Your task to perform on an android device: Open maps Image 0: 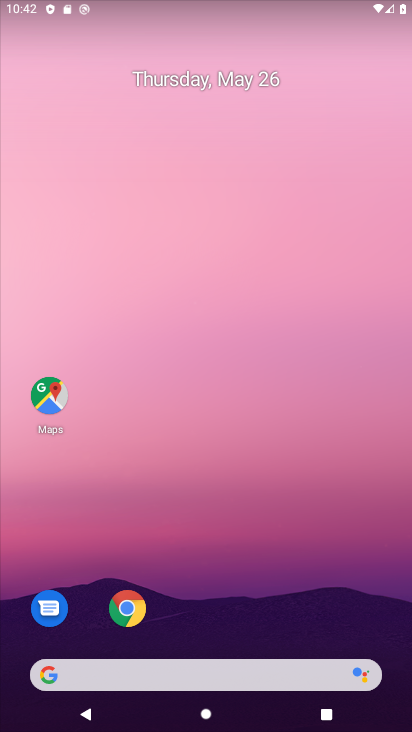
Step 0: drag from (211, 546) to (291, 69)
Your task to perform on an android device: Open maps Image 1: 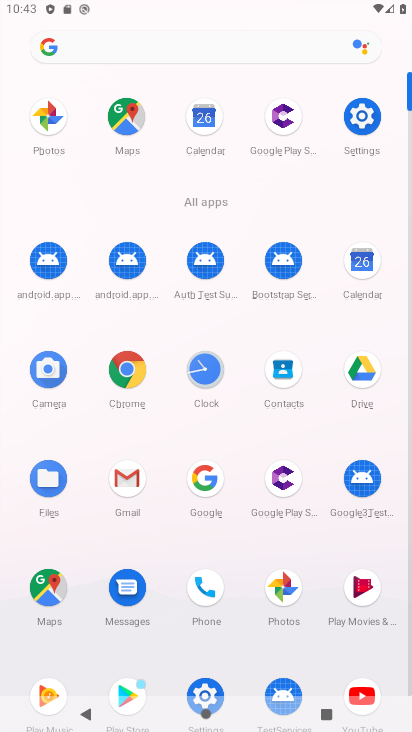
Step 1: click (124, 108)
Your task to perform on an android device: Open maps Image 2: 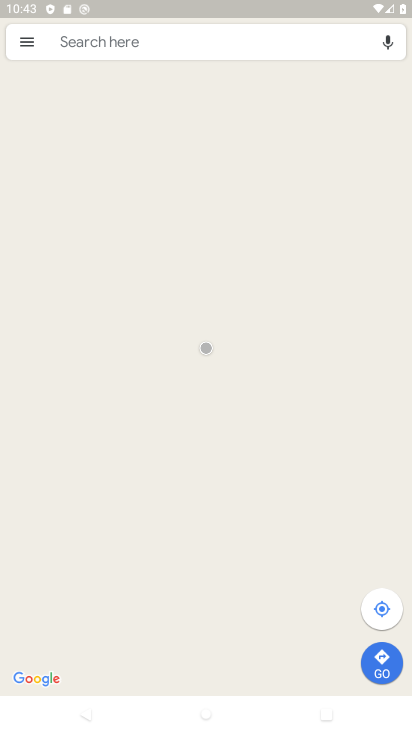
Step 2: task complete